Your task to perform on an android device: Empty the shopping cart on newegg. Add "razer blade" to the cart on newegg, then select checkout. Image 0: 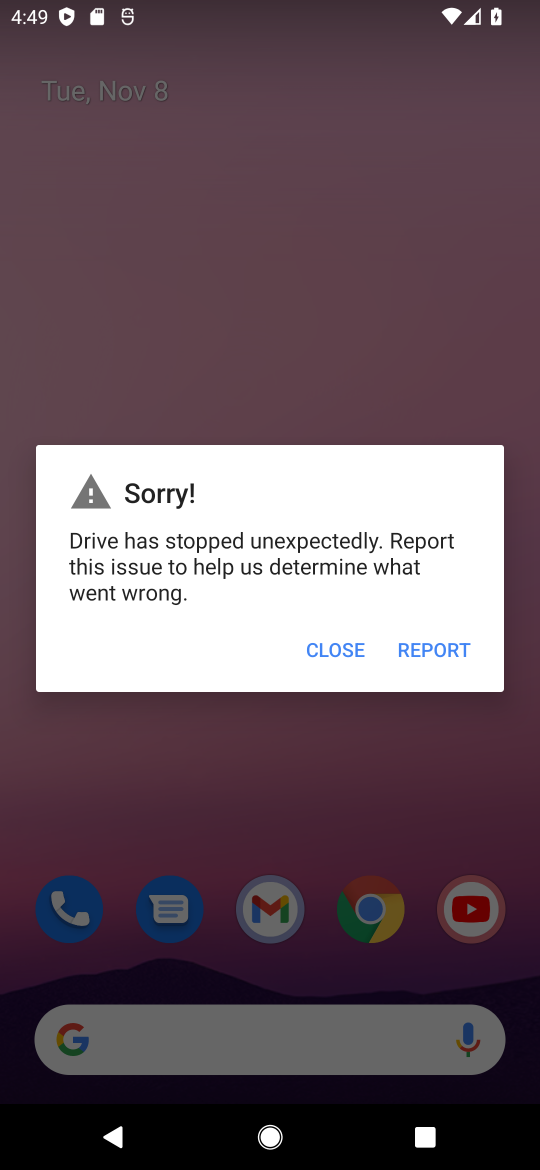
Step 0: press home button
Your task to perform on an android device: Empty the shopping cart on newegg. Add "razer blade" to the cart on newegg, then select checkout. Image 1: 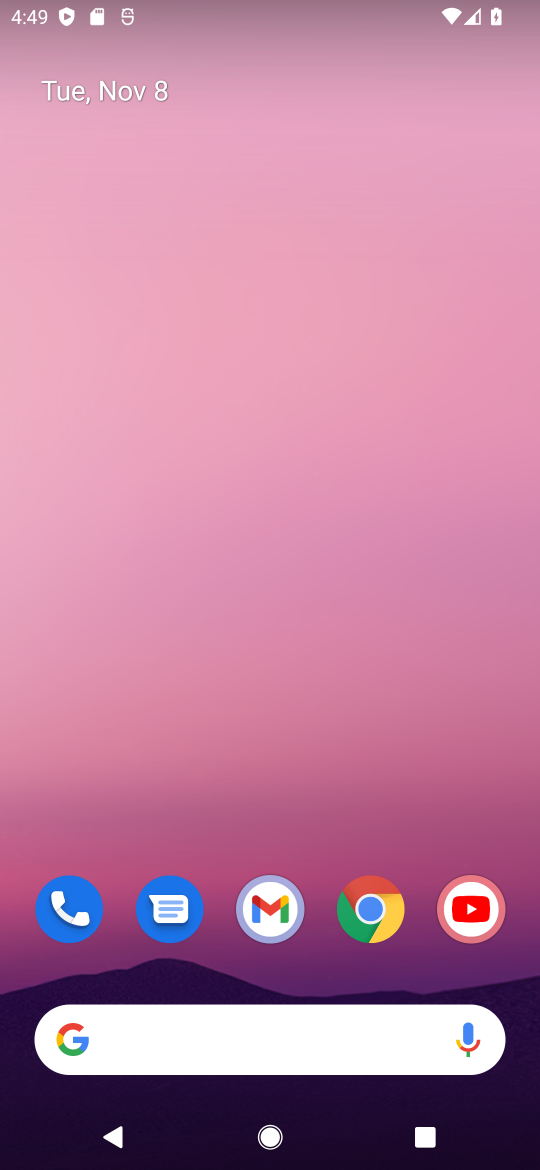
Step 1: click (377, 907)
Your task to perform on an android device: Empty the shopping cart on newegg. Add "razer blade" to the cart on newegg, then select checkout. Image 2: 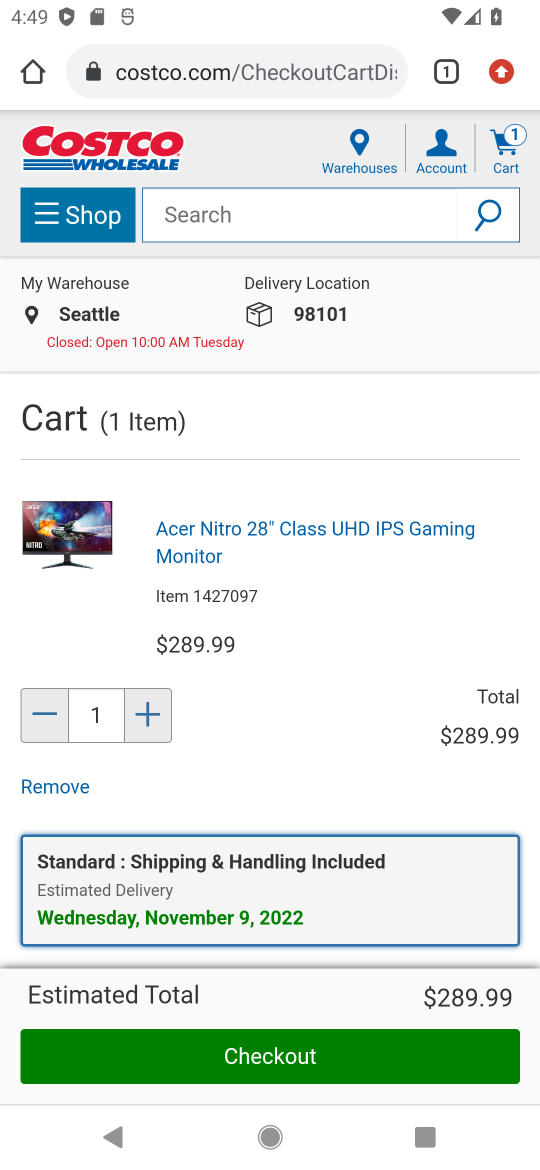
Step 2: click (340, 61)
Your task to perform on an android device: Empty the shopping cart on newegg. Add "razer blade" to the cart on newegg, then select checkout. Image 3: 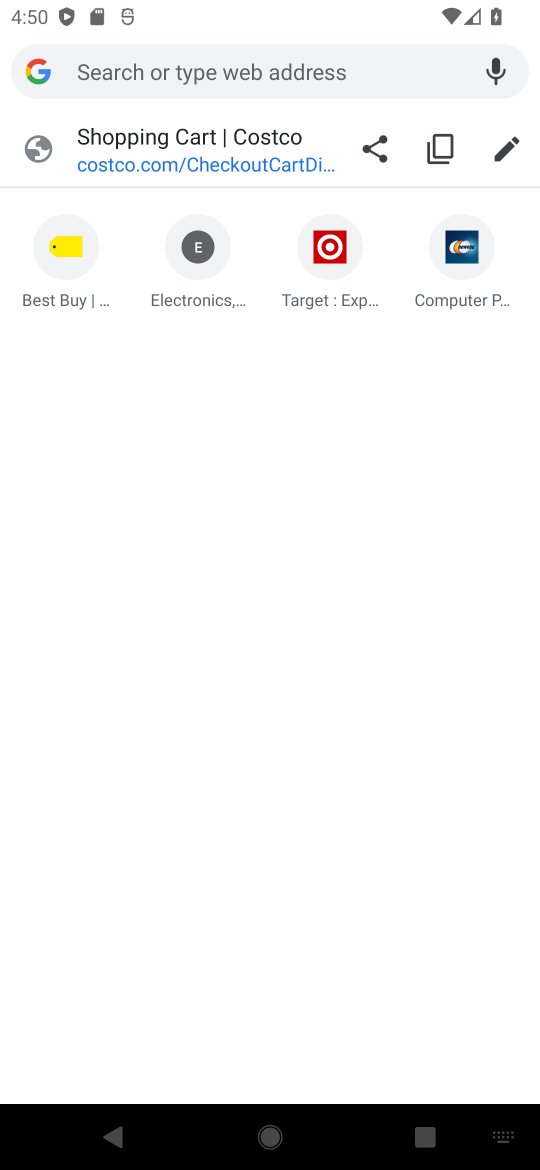
Step 3: click (271, 70)
Your task to perform on an android device: Empty the shopping cart on newegg. Add "razer blade" to the cart on newegg, then select checkout. Image 4: 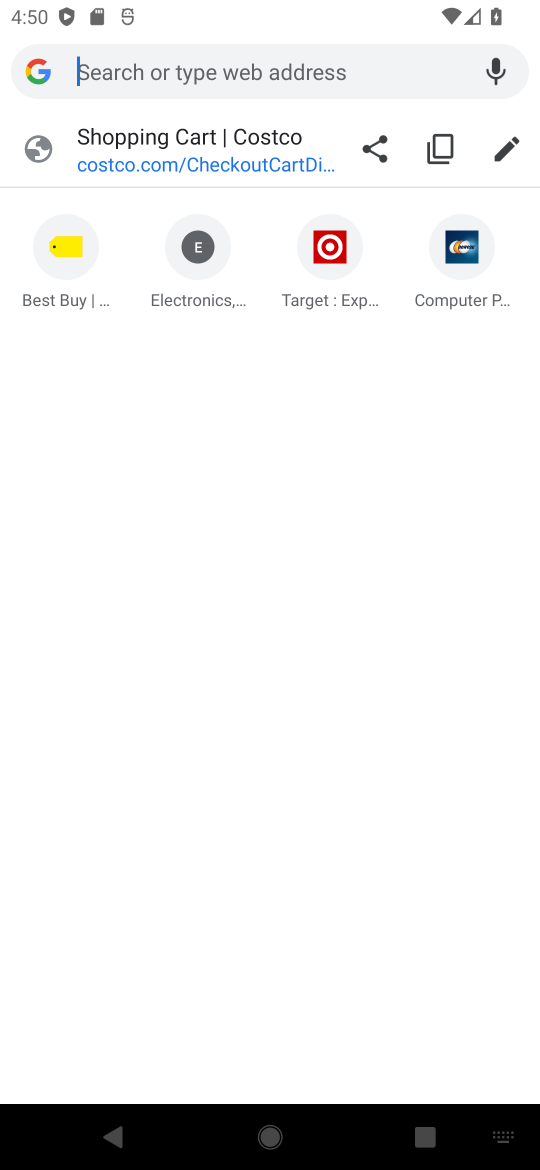
Step 4: press enter
Your task to perform on an android device: Empty the shopping cart on newegg. Add "razer blade" to the cart on newegg, then select checkout. Image 5: 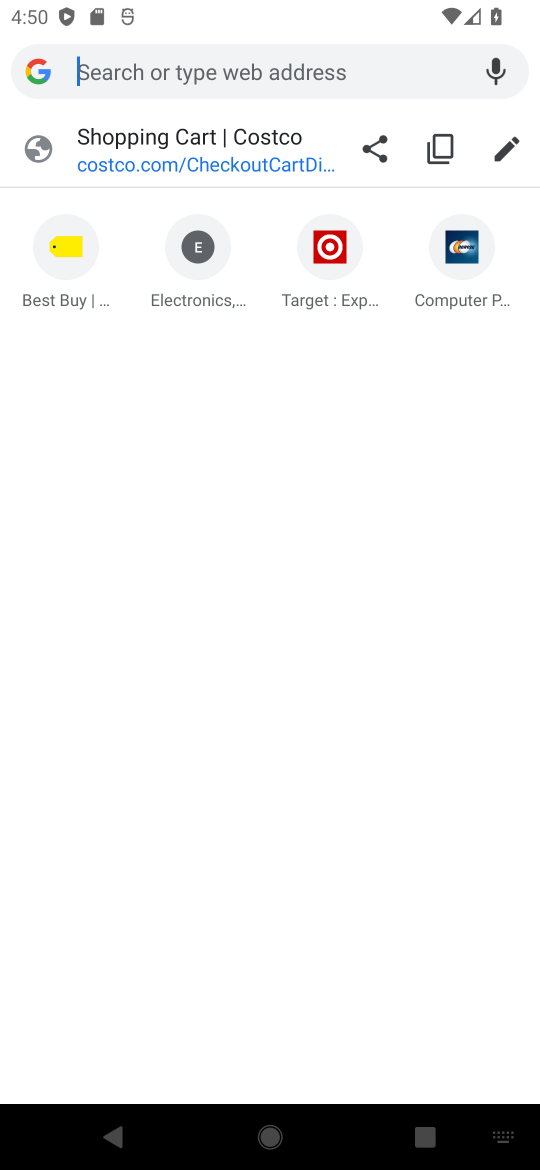
Step 5: type "newegg"
Your task to perform on an android device: Empty the shopping cart on newegg. Add "razer blade" to the cart on newegg, then select checkout. Image 6: 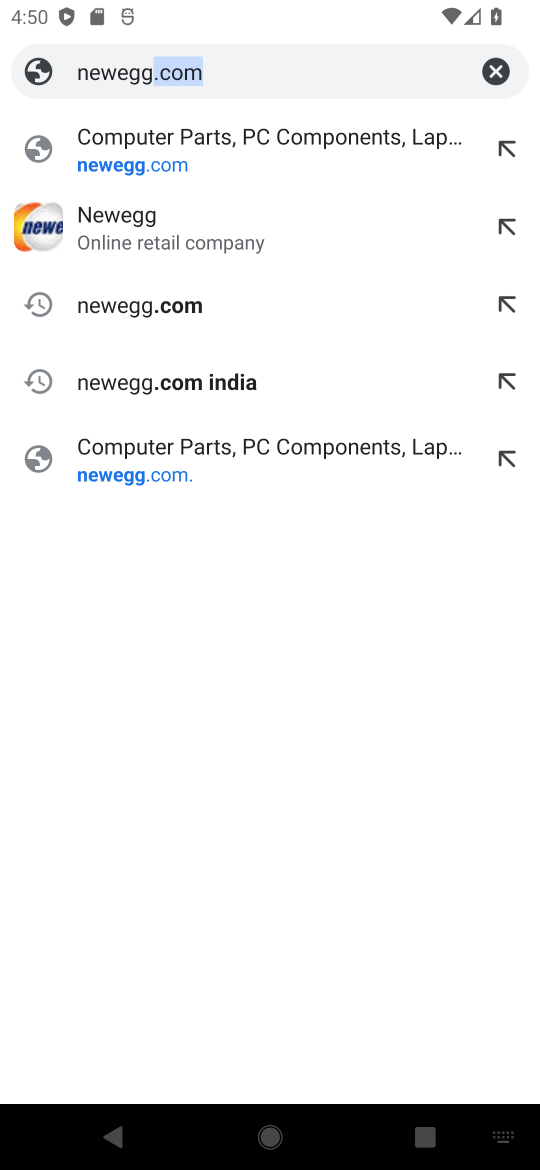
Step 6: click (111, 377)
Your task to perform on an android device: Empty the shopping cart on newegg. Add "razer blade" to the cart on newegg, then select checkout. Image 7: 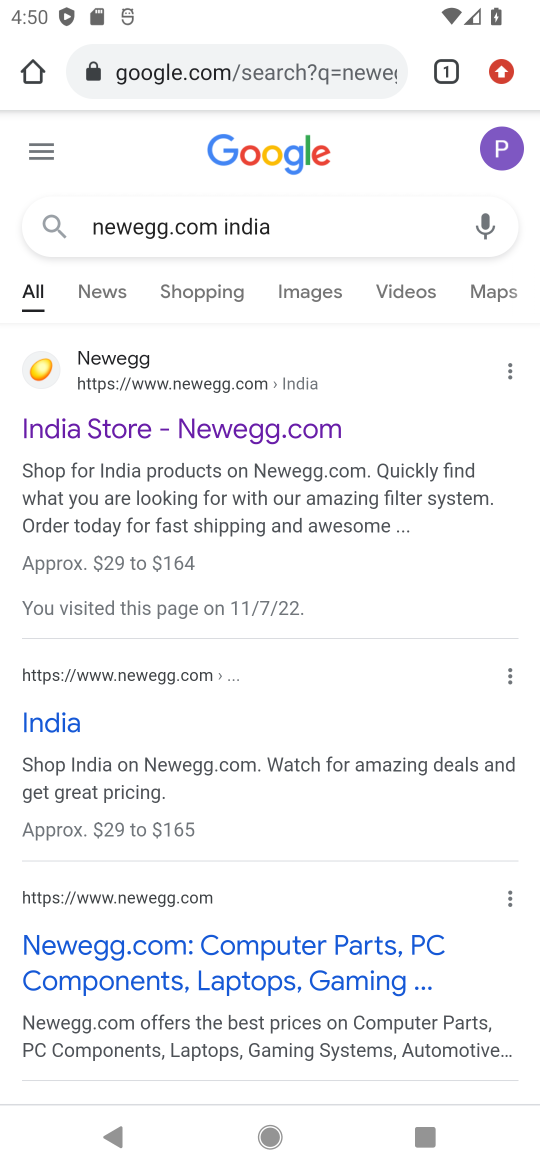
Step 7: click (208, 427)
Your task to perform on an android device: Empty the shopping cart on newegg. Add "razer blade" to the cart on newegg, then select checkout. Image 8: 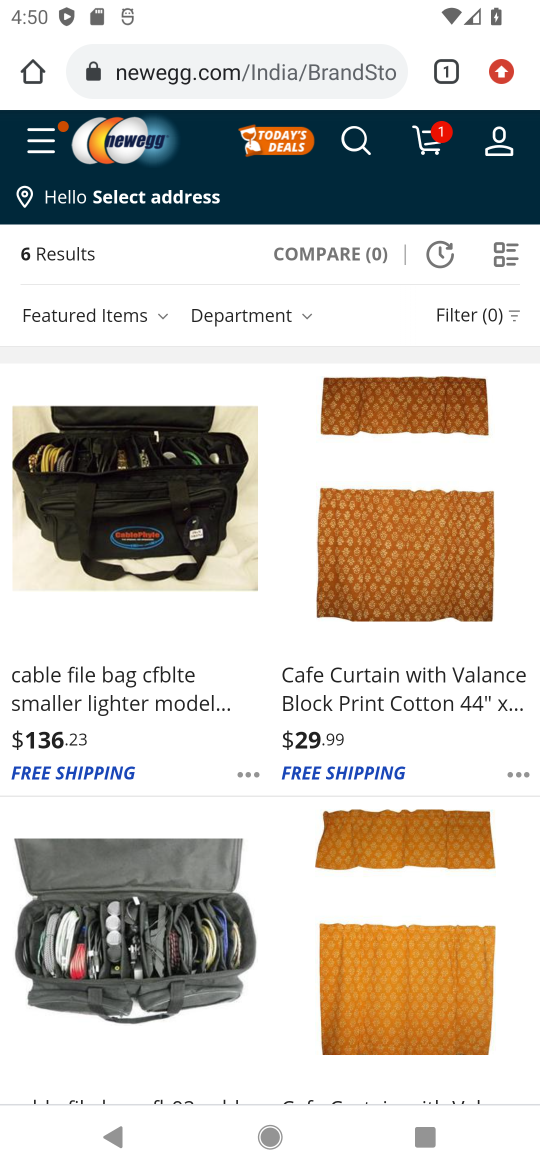
Step 8: click (355, 128)
Your task to perform on an android device: Empty the shopping cart on newegg. Add "razer blade" to the cart on newegg, then select checkout. Image 9: 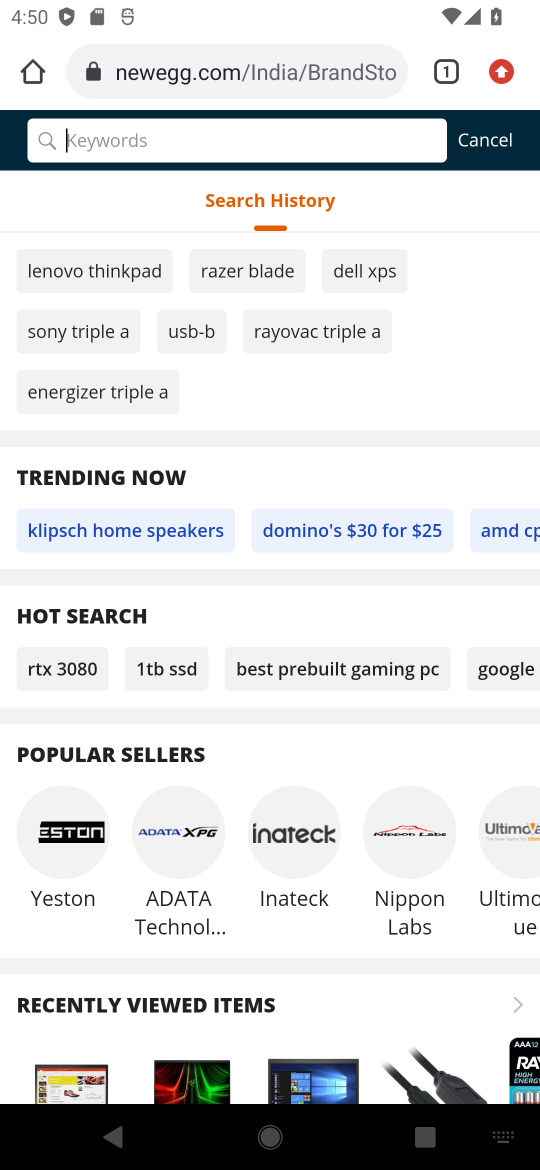
Step 9: type "razer blade"
Your task to perform on an android device: Empty the shopping cart on newegg. Add "razer blade" to the cart on newegg, then select checkout. Image 10: 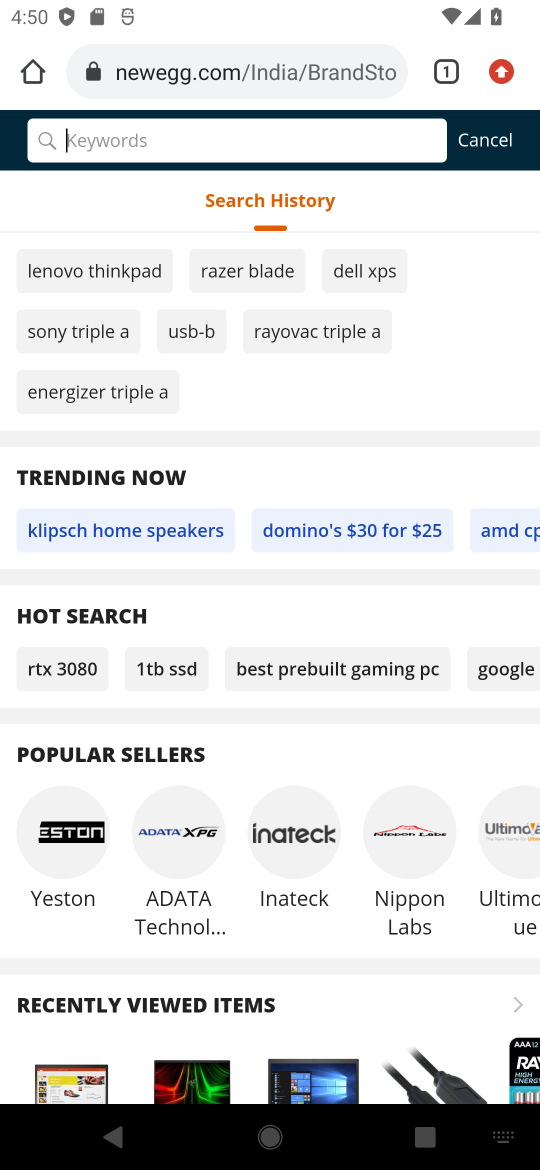
Step 10: press enter
Your task to perform on an android device: Empty the shopping cart on newegg. Add "razer blade" to the cart on newegg, then select checkout. Image 11: 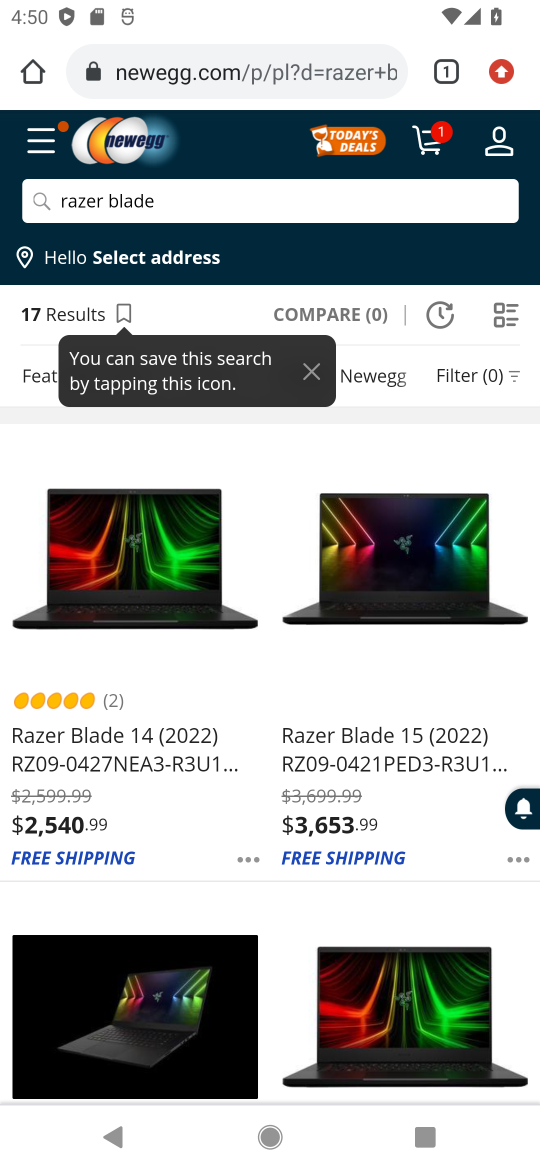
Step 11: click (142, 733)
Your task to perform on an android device: Empty the shopping cart on newegg. Add "razer blade" to the cart on newegg, then select checkout. Image 12: 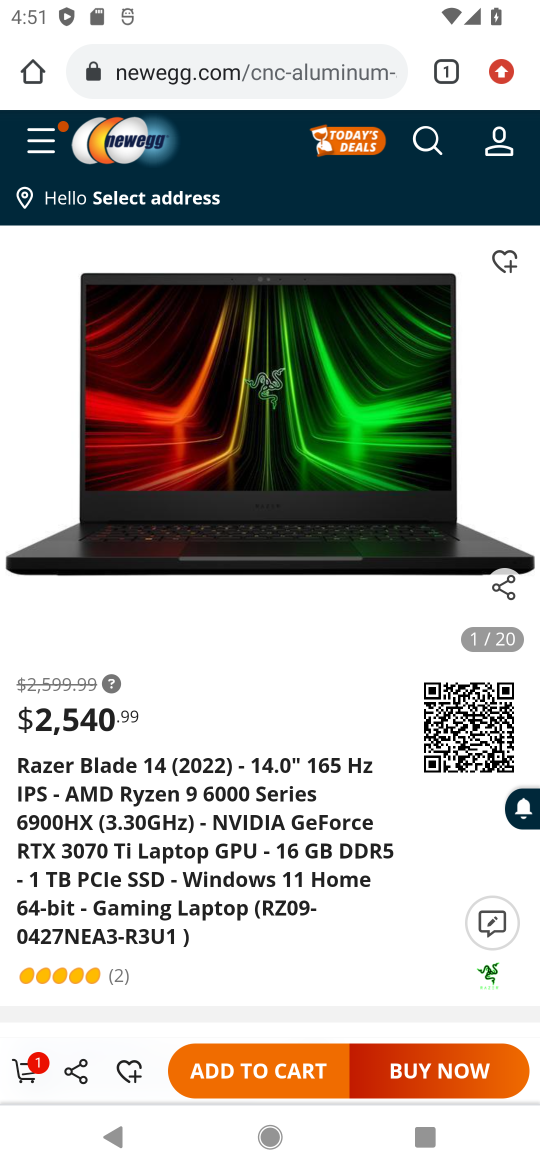
Step 12: click (232, 1070)
Your task to perform on an android device: Empty the shopping cart on newegg. Add "razer blade" to the cart on newegg, then select checkout. Image 13: 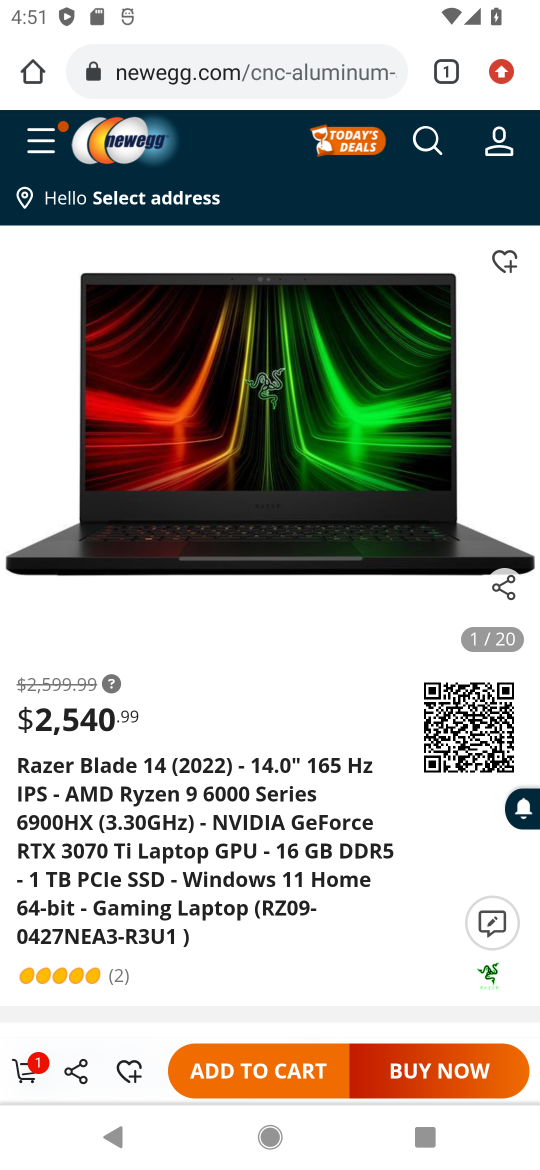
Step 13: click (285, 1070)
Your task to perform on an android device: Empty the shopping cart on newegg. Add "razer blade" to the cart on newegg, then select checkout. Image 14: 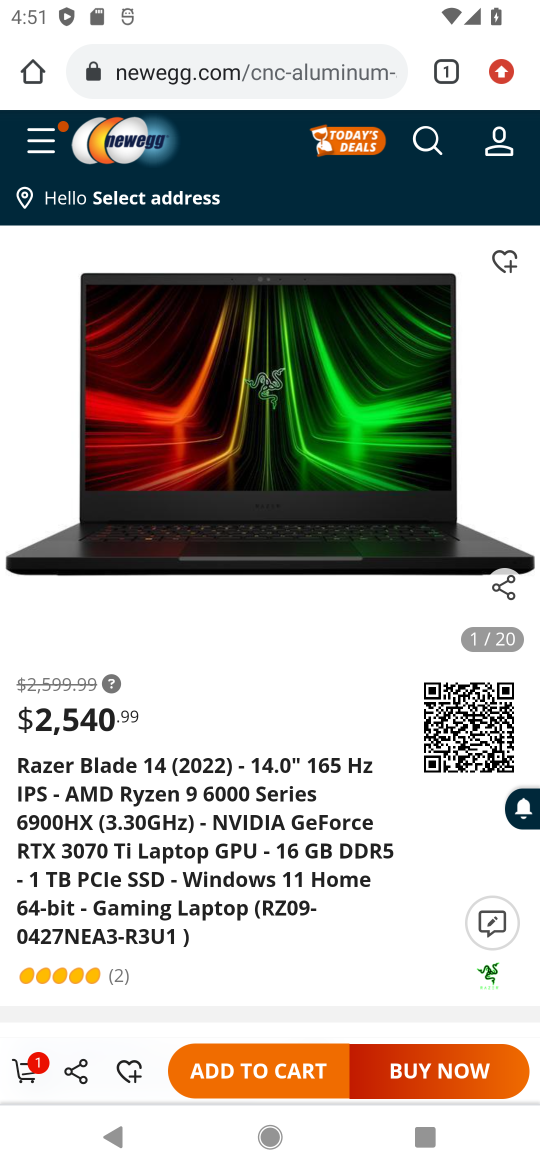
Step 14: drag from (210, 944) to (409, 472)
Your task to perform on an android device: Empty the shopping cart on newegg. Add "razer blade" to the cart on newegg, then select checkout. Image 15: 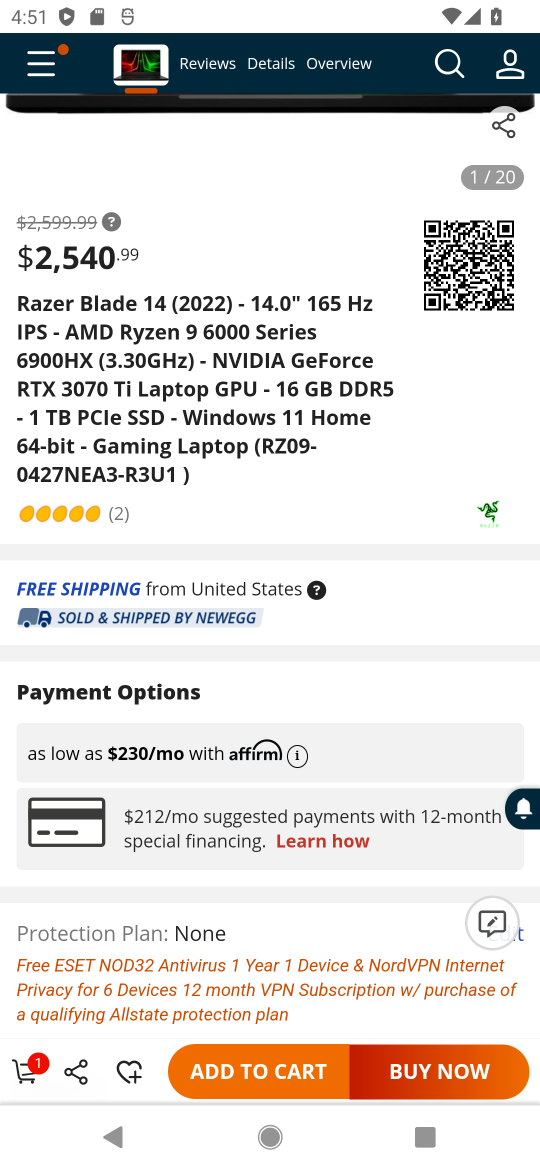
Step 15: click (264, 1073)
Your task to perform on an android device: Empty the shopping cart on newegg. Add "razer blade" to the cart on newegg, then select checkout. Image 16: 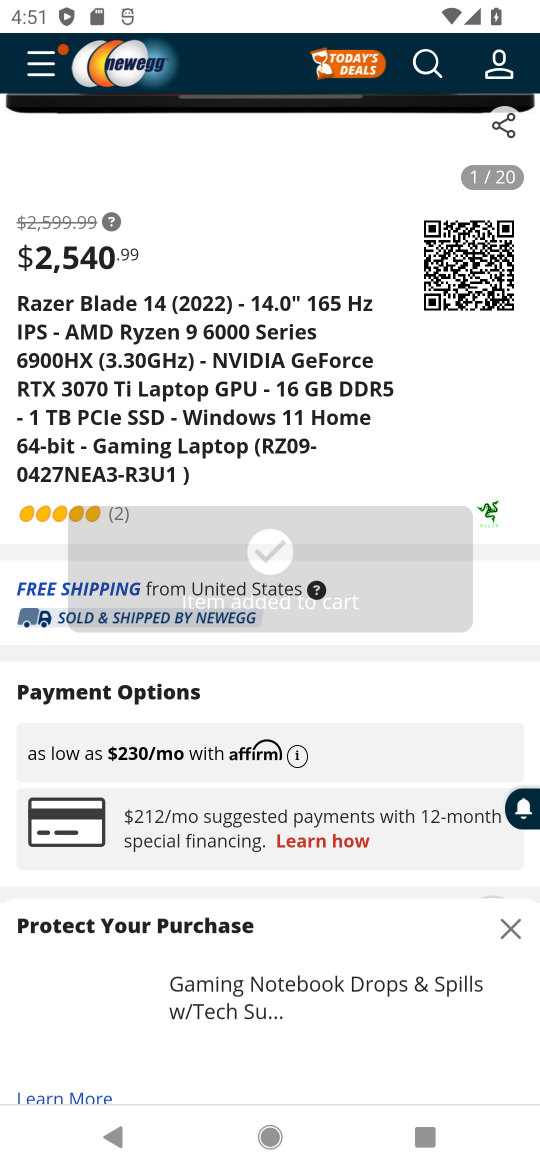
Step 16: click (36, 1059)
Your task to perform on an android device: Empty the shopping cart on newegg. Add "razer blade" to the cart on newegg, then select checkout. Image 17: 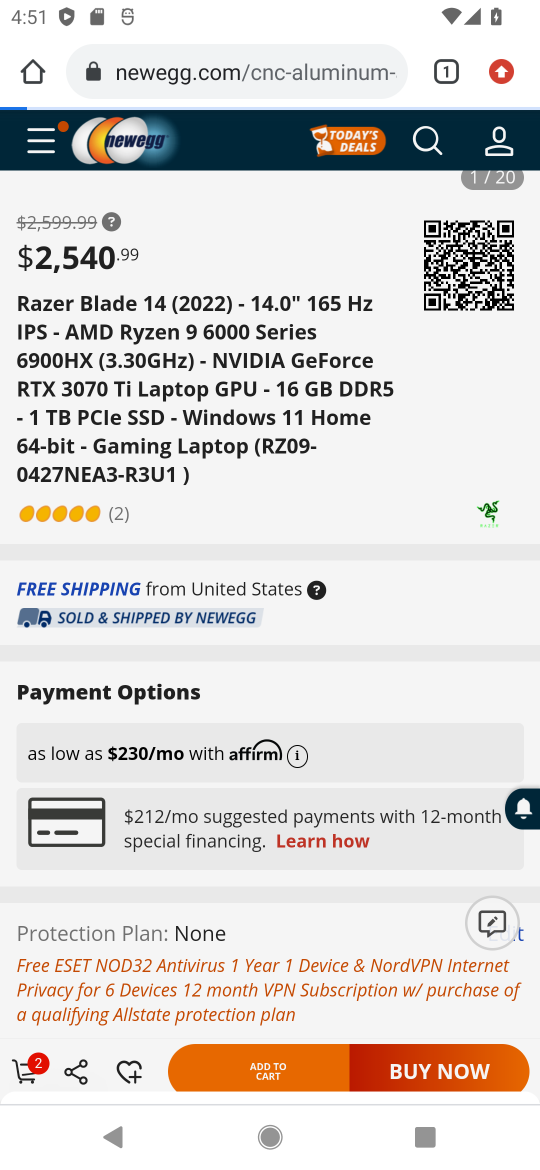
Step 17: click (42, 1058)
Your task to perform on an android device: Empty the shopping cart on newegg. Add "razer blade" to the cart on newegg, then select checkout. Image 18: 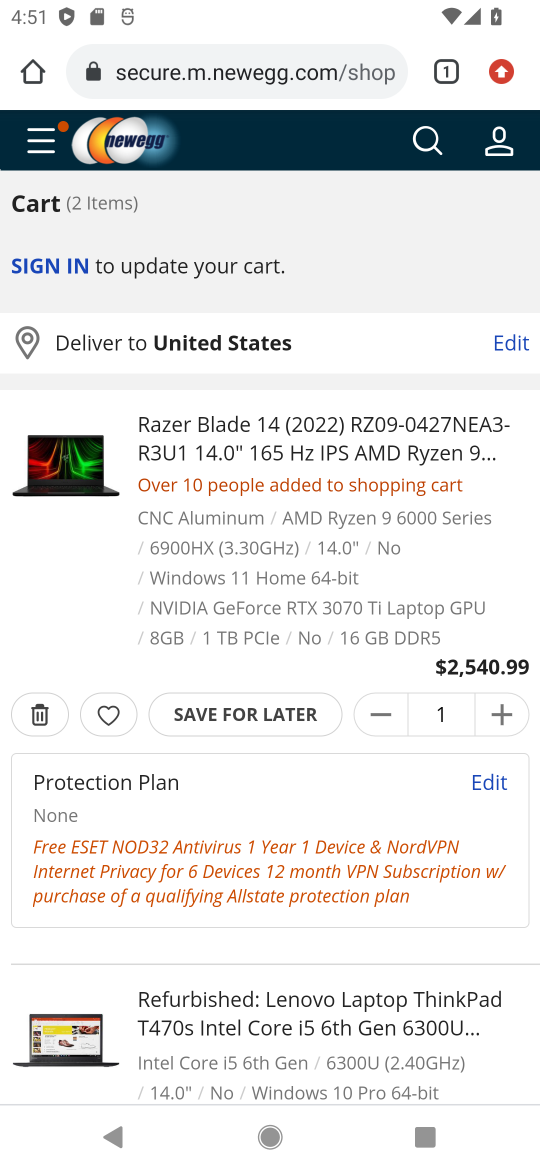
Step 18: drag from (264, 848) to (461, 365)
Your task to perform on an android device: Empty the shopping cart on newegg. Add "razer blade" to the cart on newegg, then select checkout. Image 19: 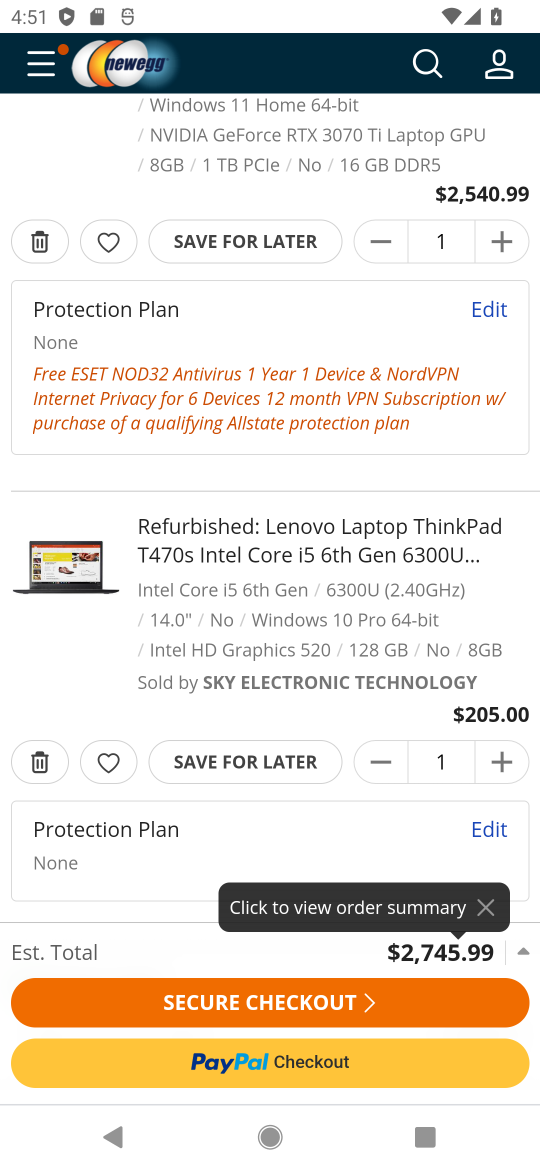
Step 19: click (34, 760)
Your task to perform on an android device: Empty the shopping cart on newegg. Add "razer blade" to the cart on newegg, then select checkout. Image 20: 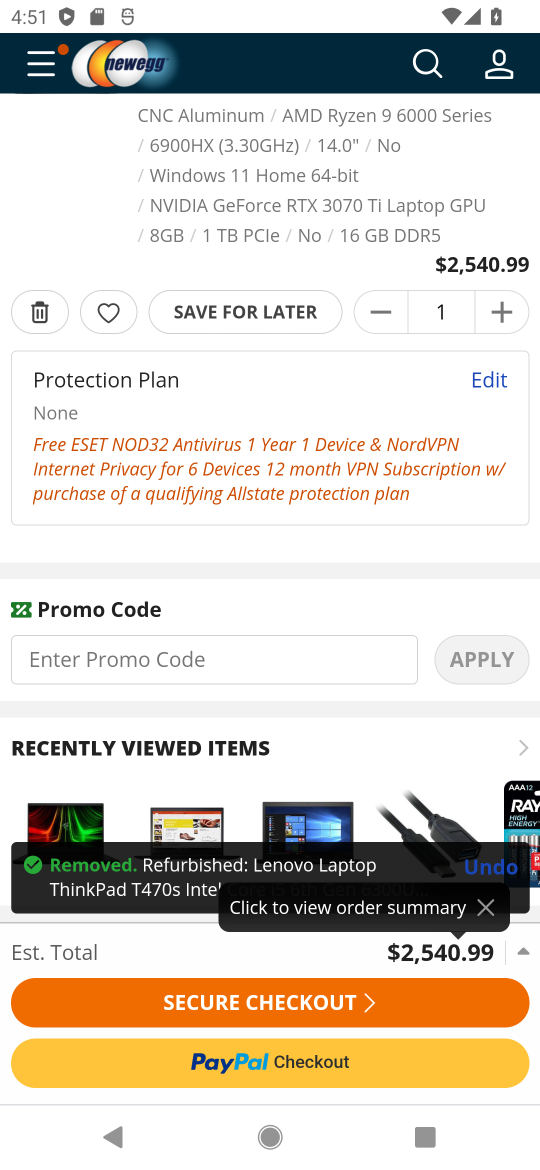
Step 20: task complete